Your task to perform on an android device: Clear the cart on walmart.com. Search for razer huntsman on walmart.com, select the first entry, and add it to the cart. Image 0: 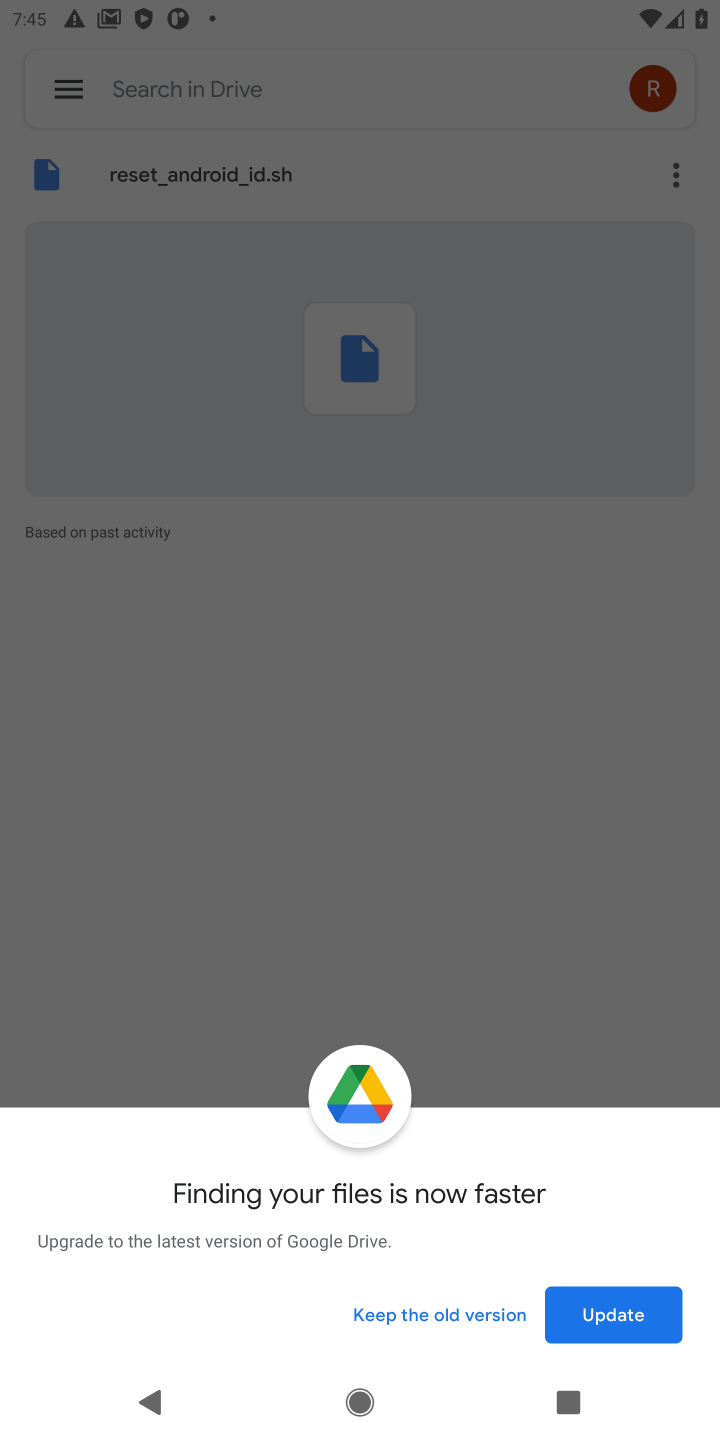
Step 0: press home button
Your task to perform on an android device: Clear the cart on walmart.com. Search for razer huntsman on walmart.com, select the first entry, and add it to the cart. Image 1: 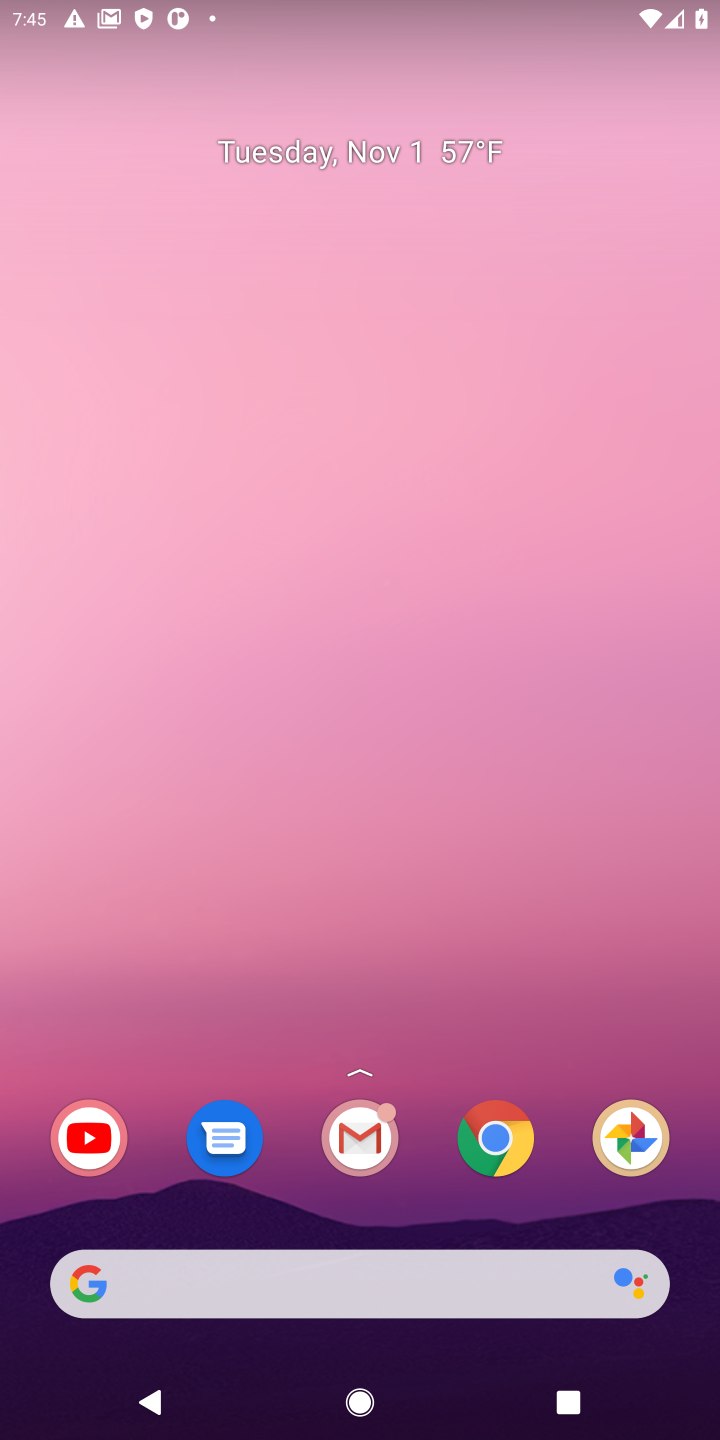
Step 1: click (497, 1162)
Your task to perform on an android device: Clear the cart on walmart.com. Search for razer huntsman on walmart.com, select the first entry, and add it to the cart. Image 2: 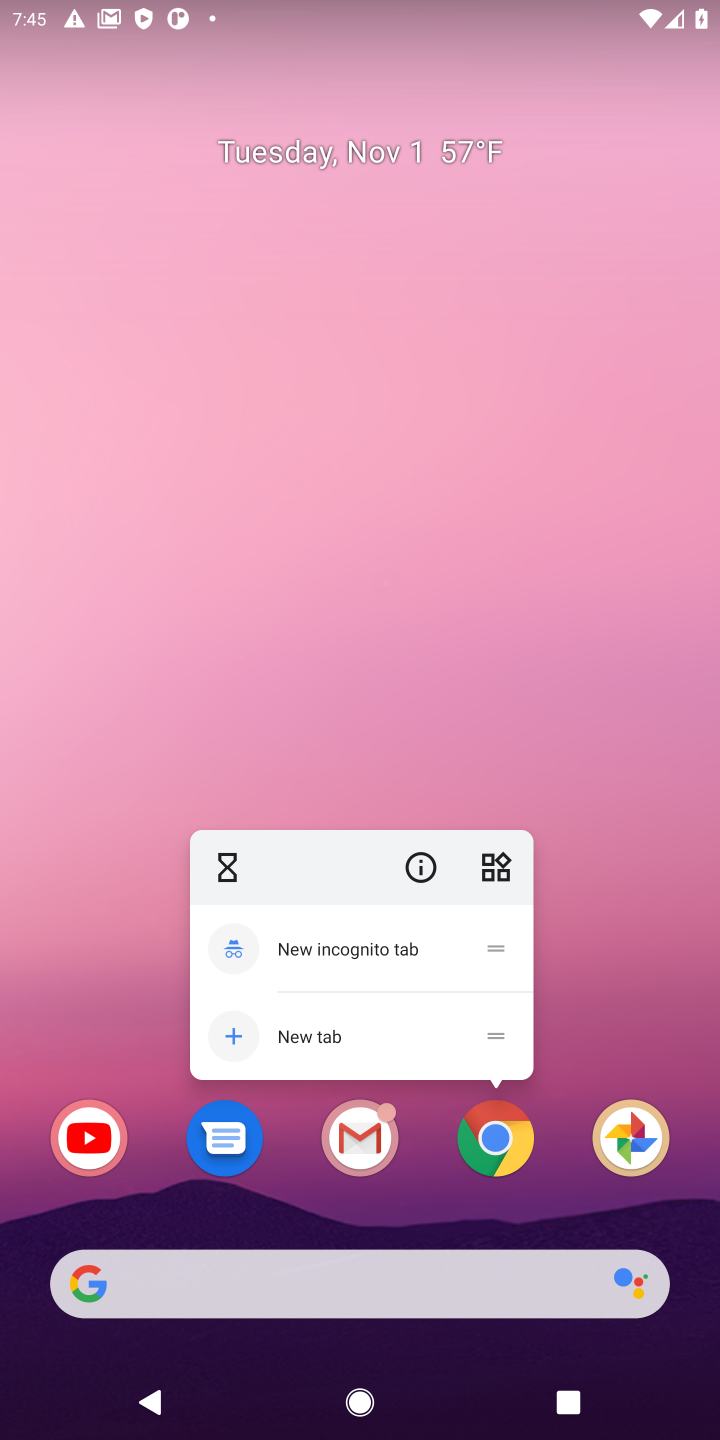
Step 2: click (513, 1134)
Your task to perform on an android device: Clear the cart on walmart.com. Search for razer huntsman on walmart.com, select the first entry, and add it to the cart. Image 3: 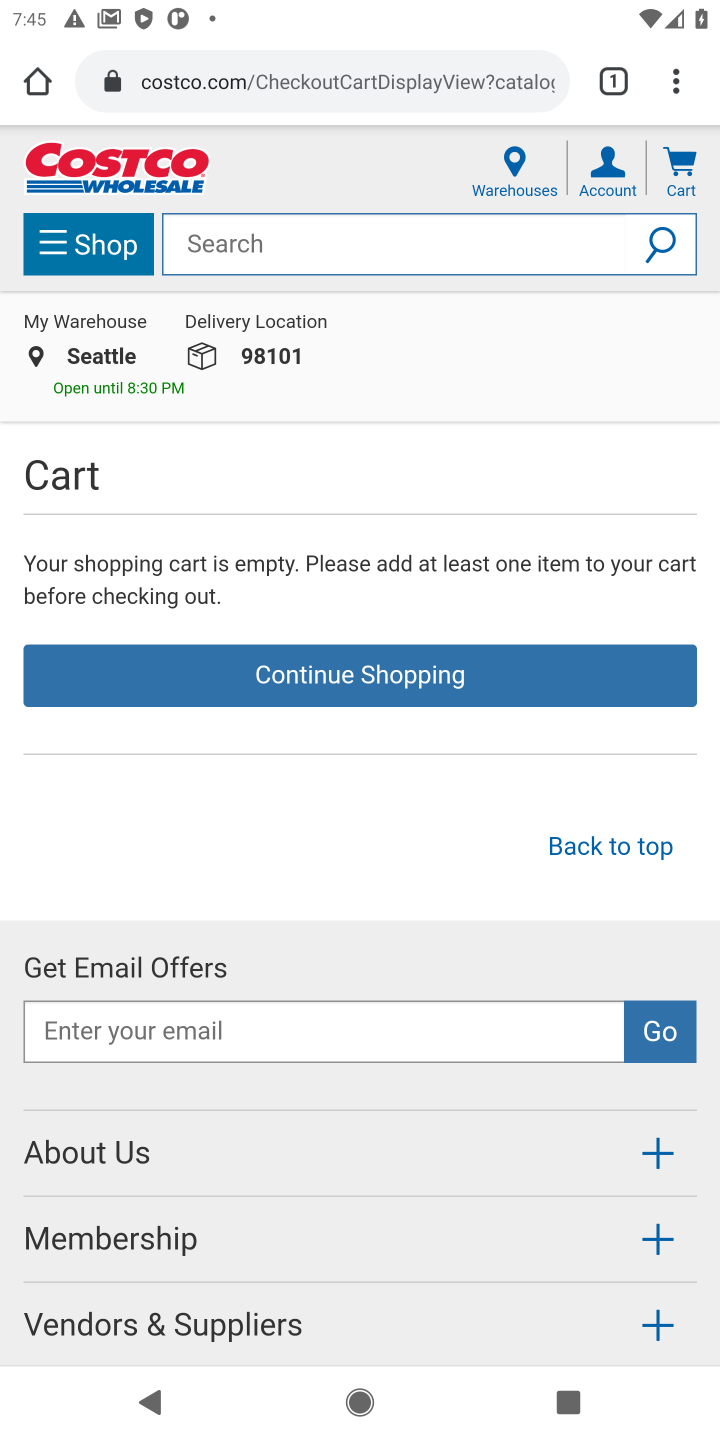
Step 3: click (255, 86)
Your task to perform on an android device: Clear the cart on walmart.com. Search for razer huntsman on walmart.com, select the first entry, and add it to the cart. Image 4: 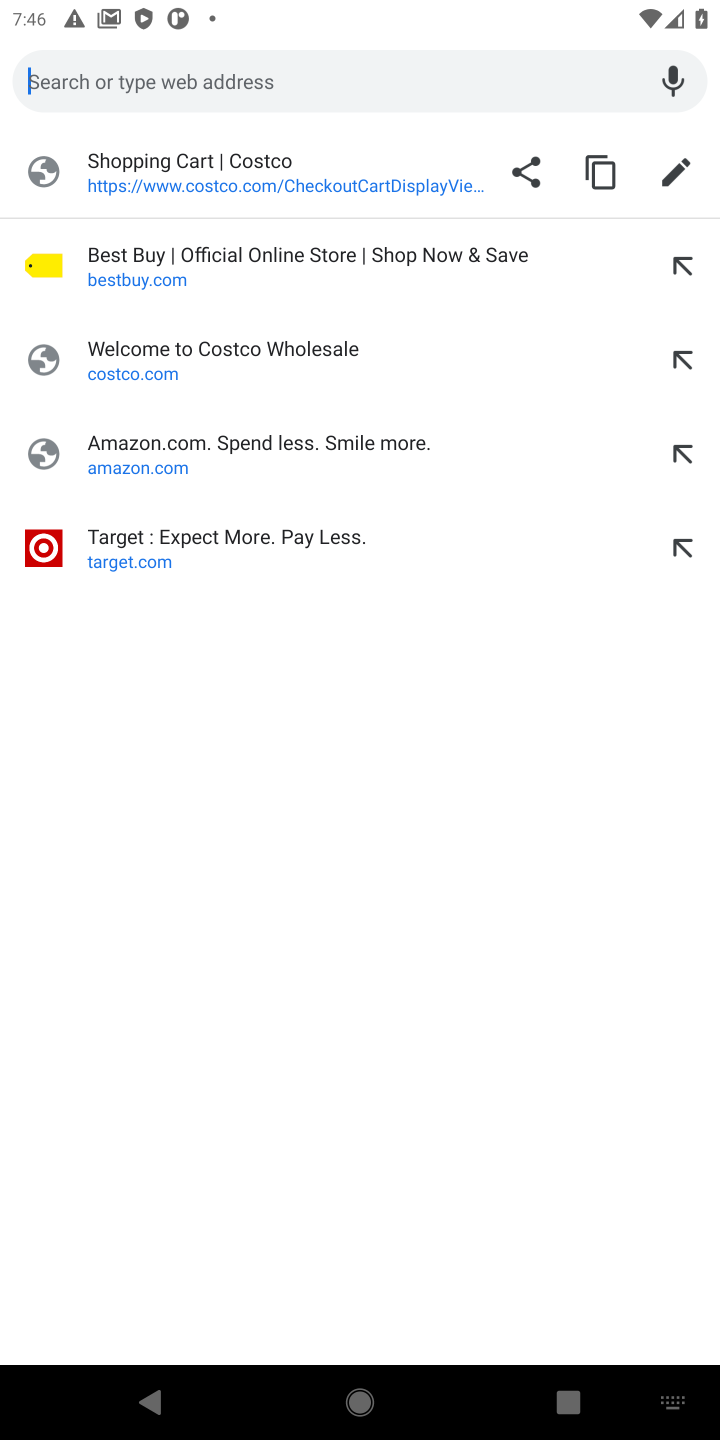
Step 4: type "walmart.com"
Your task to perform on an android device: Clear the cart on walmart.com. Search for razer huntsman on walmart.com, select the first entry, and add it to the cart. Image 5: 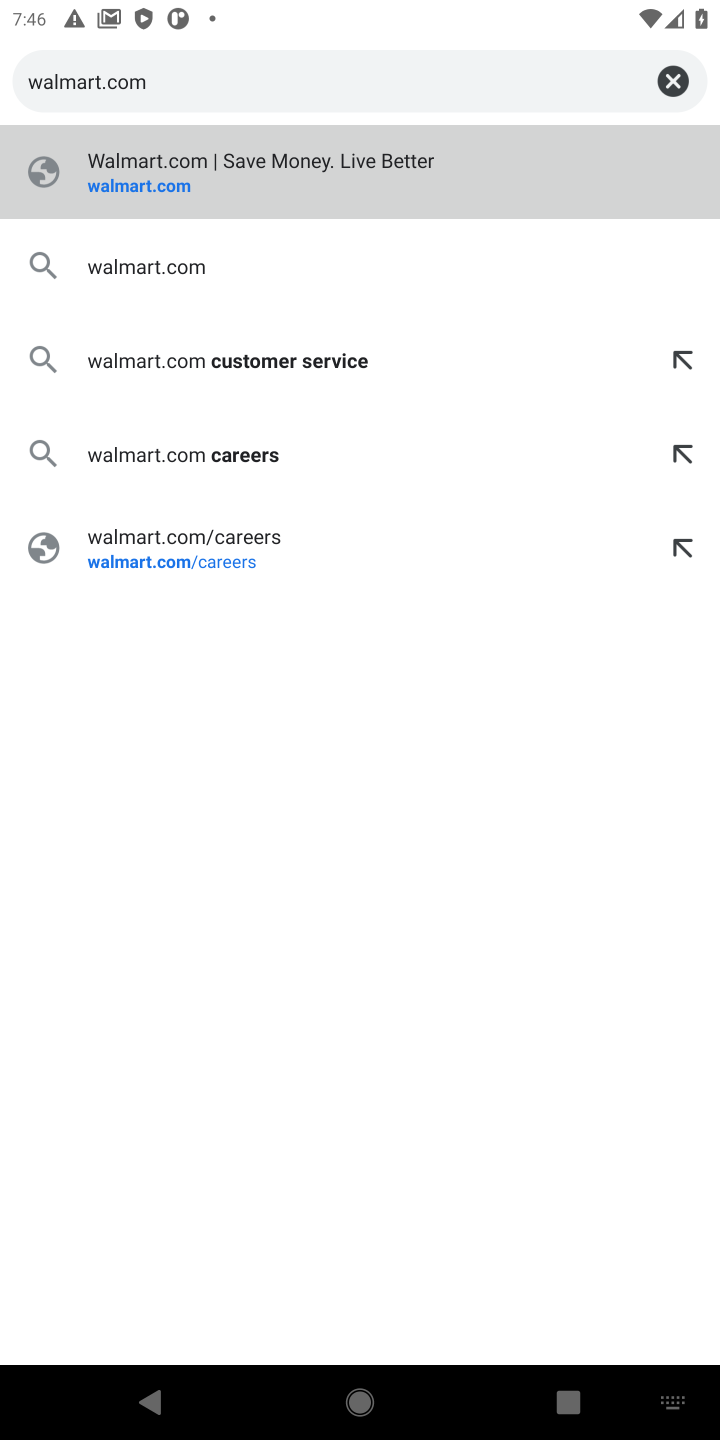
Step 5: click (111, 204)
Your task to perform on an android device: Clear the cart on walmart.com. Search for razer huntsman on walmart.com, select the first entry, and add it to the cart. Image 6: 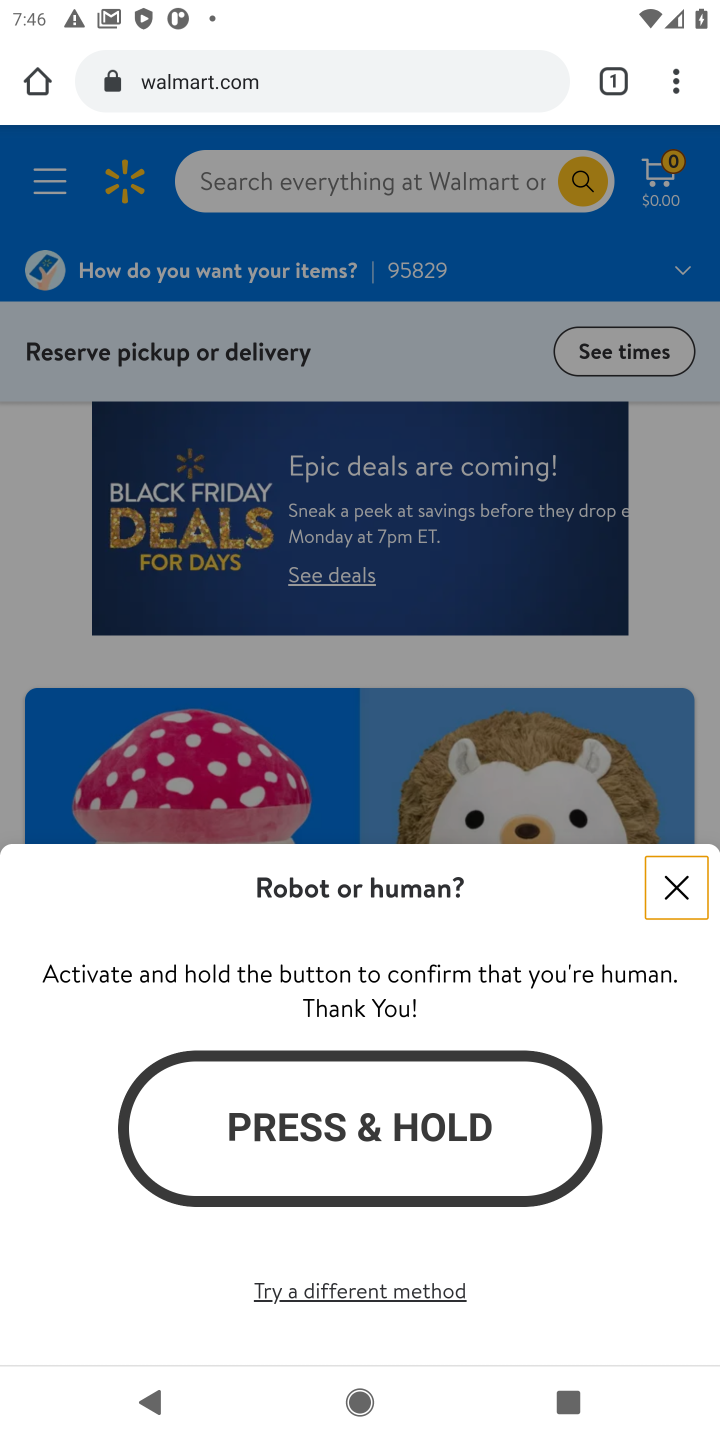
Step 6: click (683, 877)
Your task to perform on an android device: Clear the cart on walmart.com. Search for razer huntsman on walmart.com, select the first entry, and add it to the cart. Image 7: 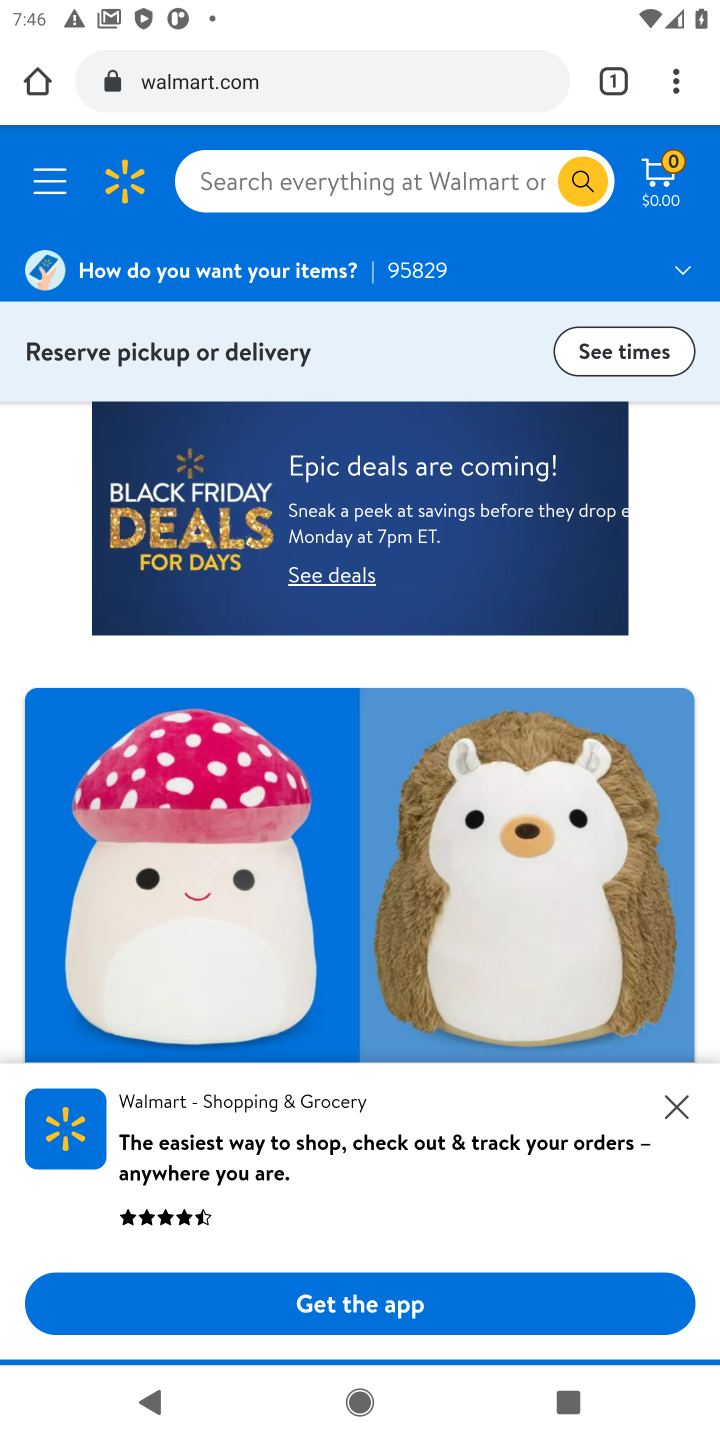
Step 7: click (651, 198)
Your task to perform on an android device: Clear the cart on walmart.com. Search for razer huntsman on walmart.com, select the first entry, and add it to the cart. Image 8: 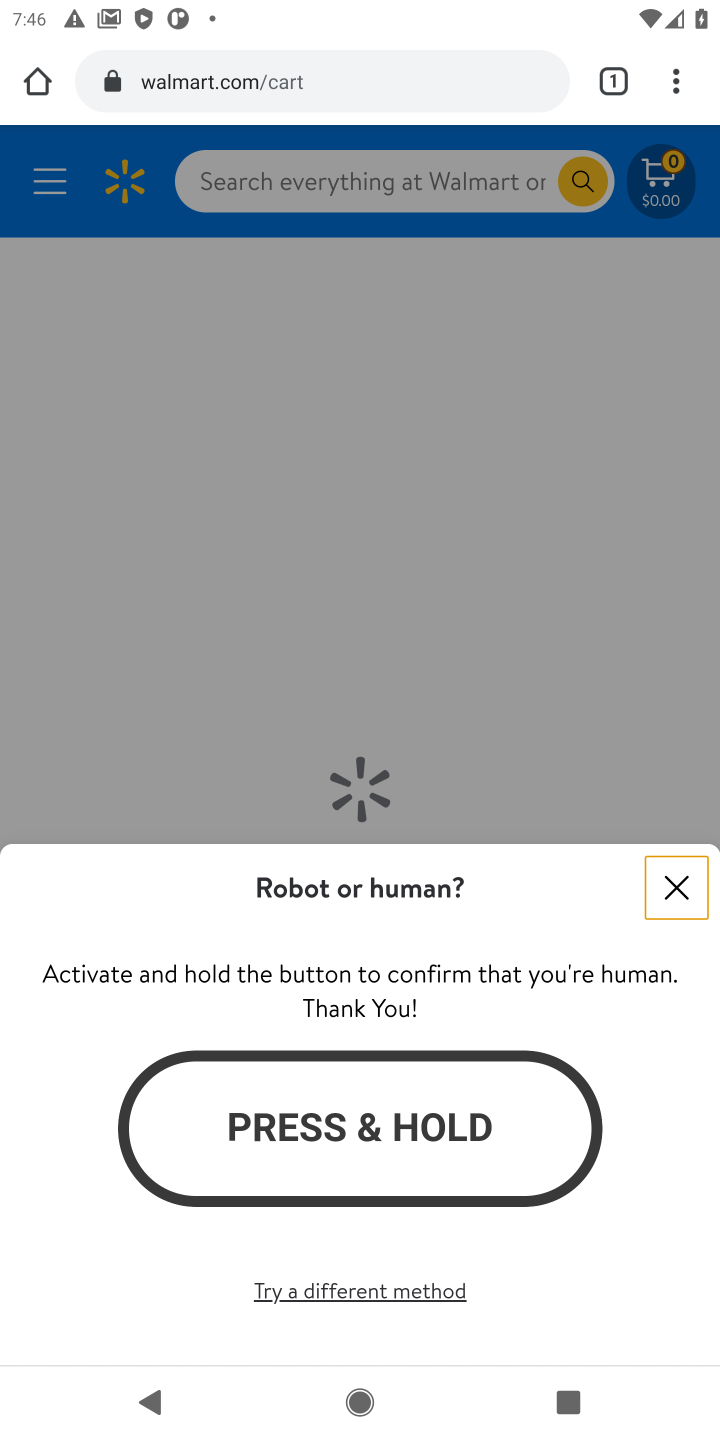
Step 8: click (344, 1138)
Your task to perform on an android device: Clear the cart on walmart.com. Search for razer huntsman on walmart.com, select the first entry, and add it to the cart. Image 9: 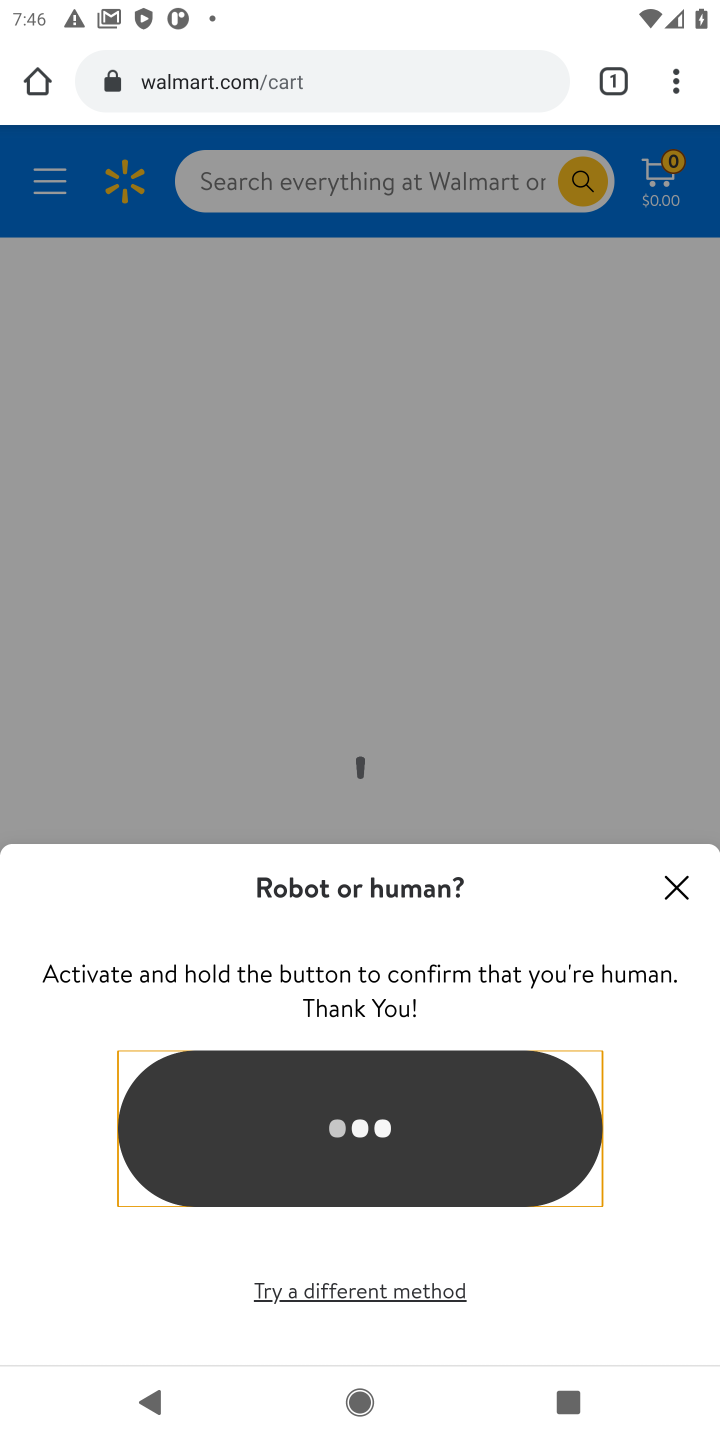
Step 9: click (681, 884)
Your task to perform on an android device: Clear the cart on walmart.com. Search for razer huntsman on walmart.com, select the first entry, and add it to the cart. Image 10: 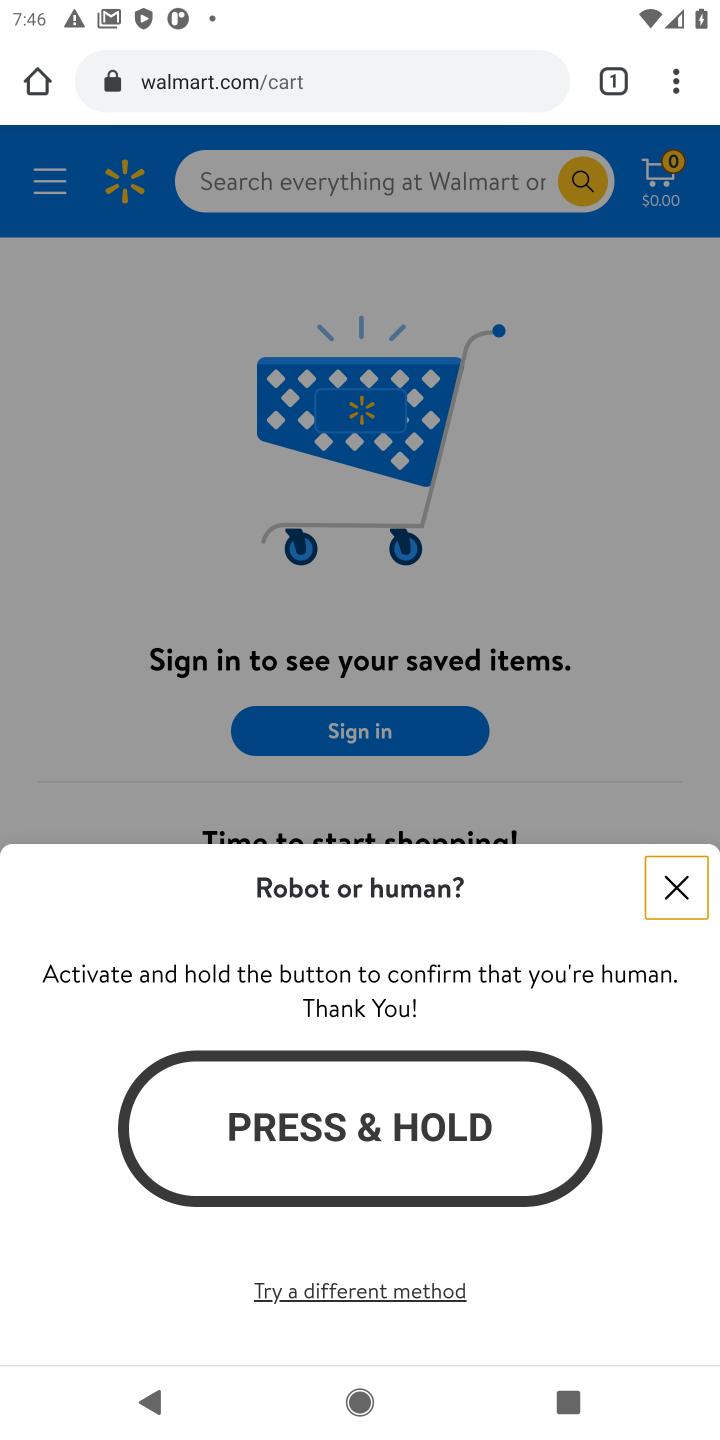
Step 10: click (667, 187)
Your task to perform on an android device: Clear the cart on walmart.com. Search for razer huntsman on walmart.com, select the first entry, and add it to the cart. Image 11: 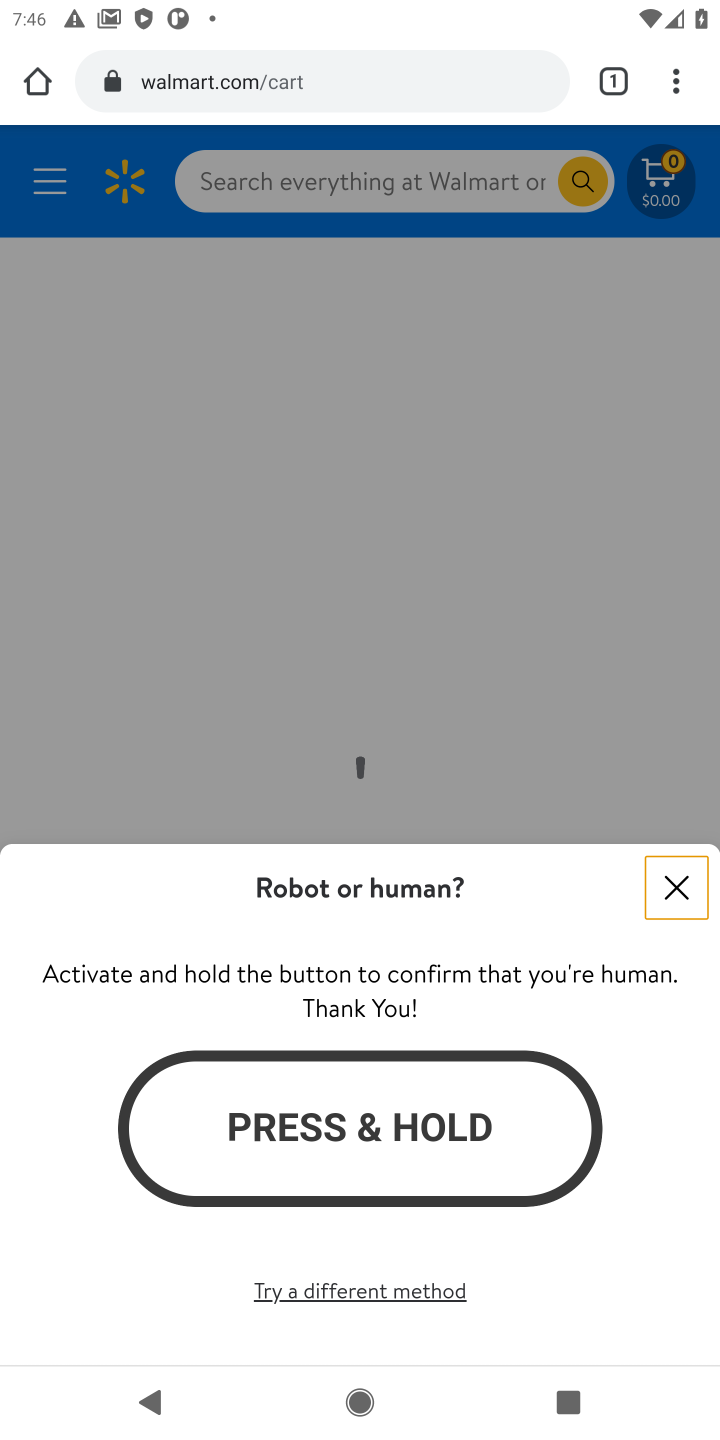
Step 11: click (675, 892)
Your task to perform on an android device: Clear the cart on walmart.com. Search for razer huntsman on walmart.com, select the first entry, and add it to the cart. Image 12: 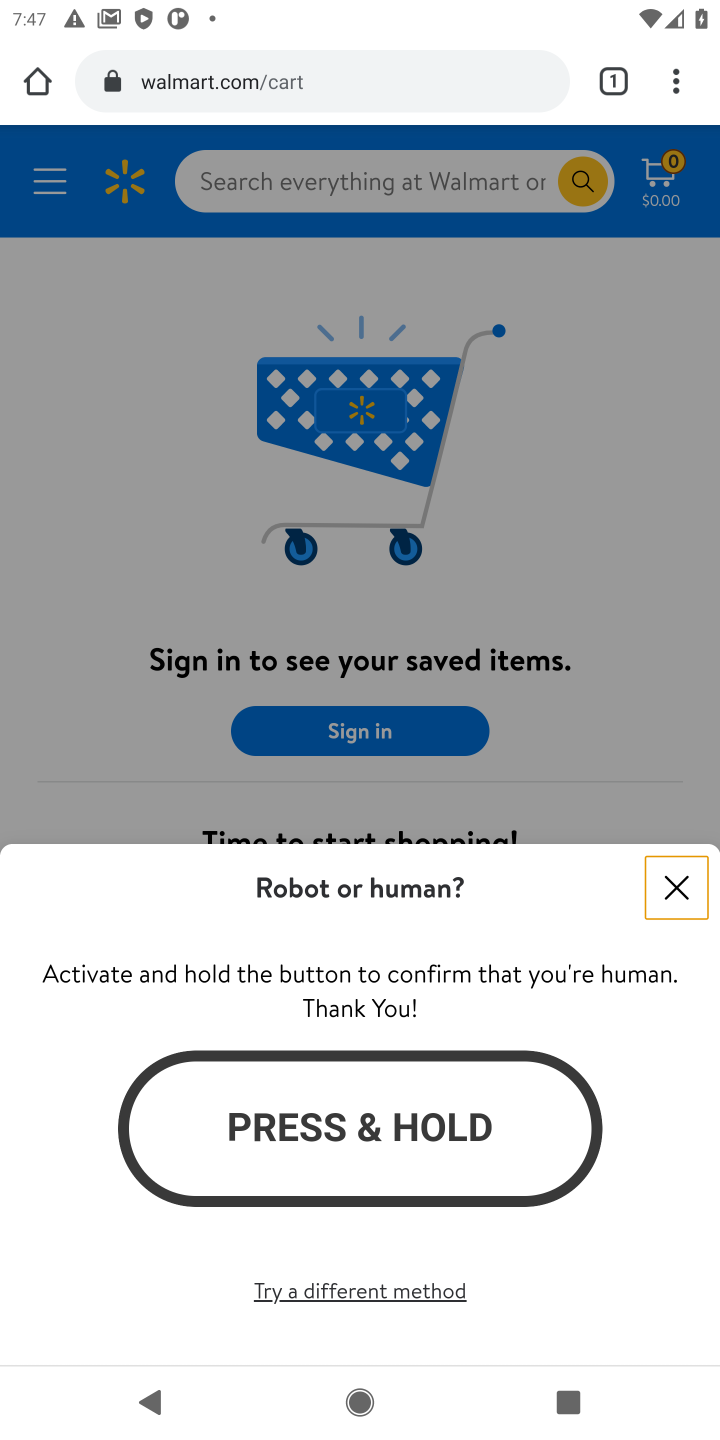
Step 12: click (326, 194)
Your task to perform on an android device: Clear the cart on walmart.com. Search for razer huntsman on walmart.com, select the first entry, and add it to the cart. Image 13: 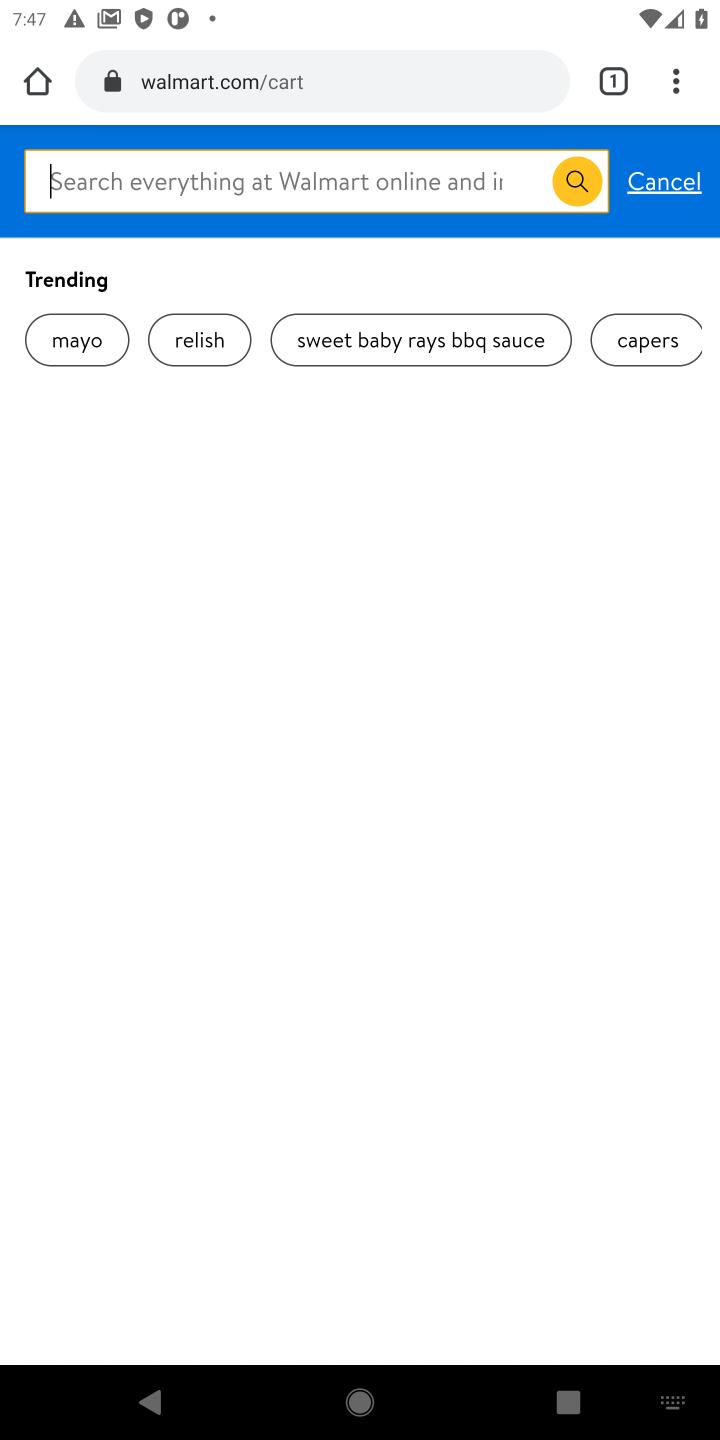
Step 13: type "razer huntsman"
Your task to perform on an android device: Clear the cart on walmart.com. Search for razer huntsman on walmart.com, select the first entry, and add it to the cart. Image 14: 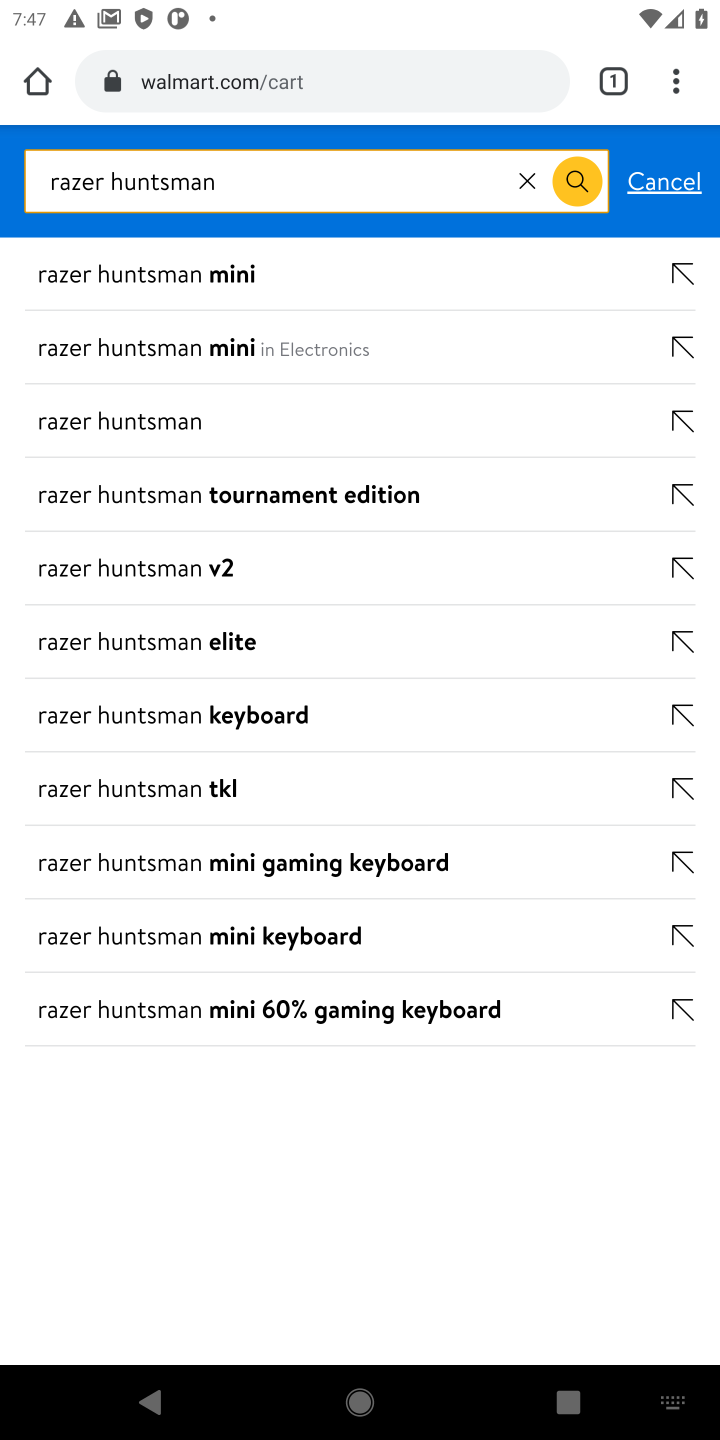
Step 14: click (151, 418)
Your task to perform on an android device: Clear the cart on walmart.com. Search for razer huntsman on walmart.com, select the first entry, and add it to the cart. Image 15: 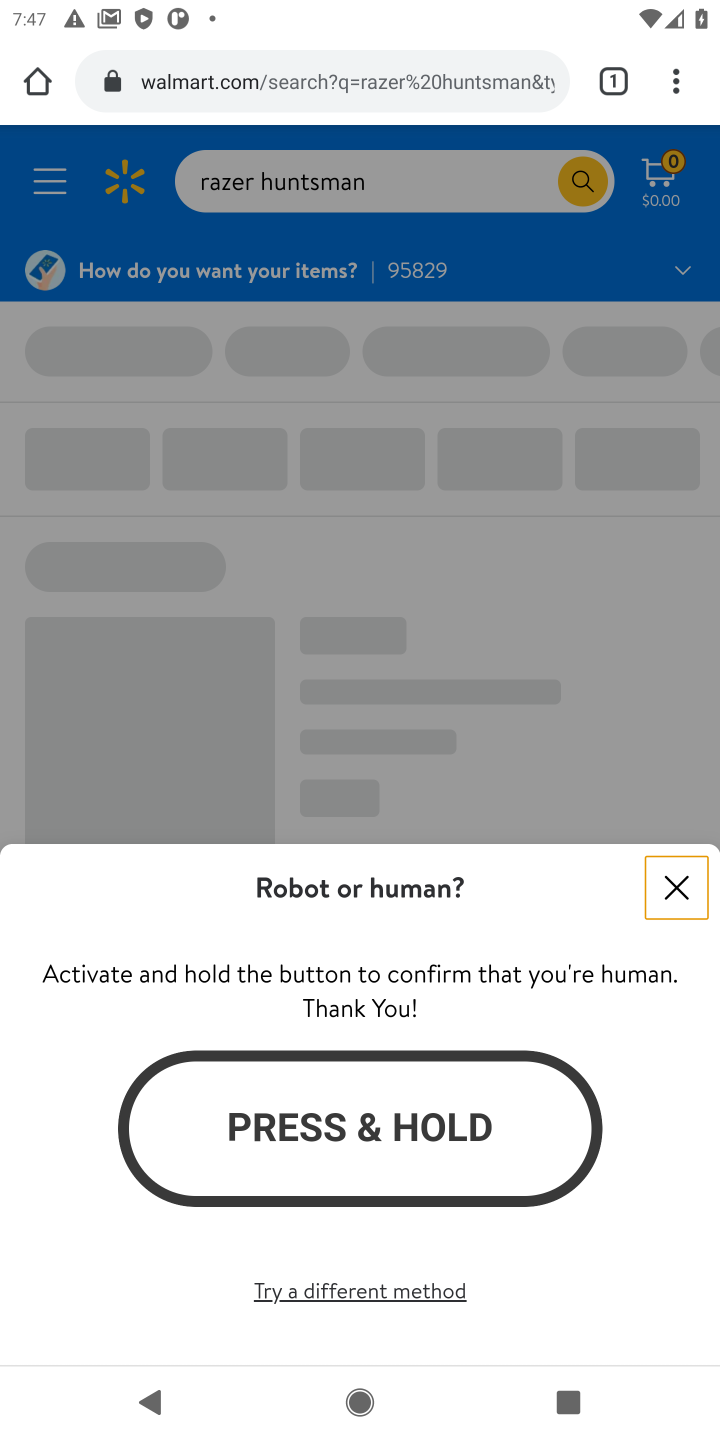
Step 15: click (678, 887)
Your task to perform on an android device: Clear the cart on walmart.com. Search for razer huntsman on walmart.com, select the first entry, and add it to the cart. Image 16: 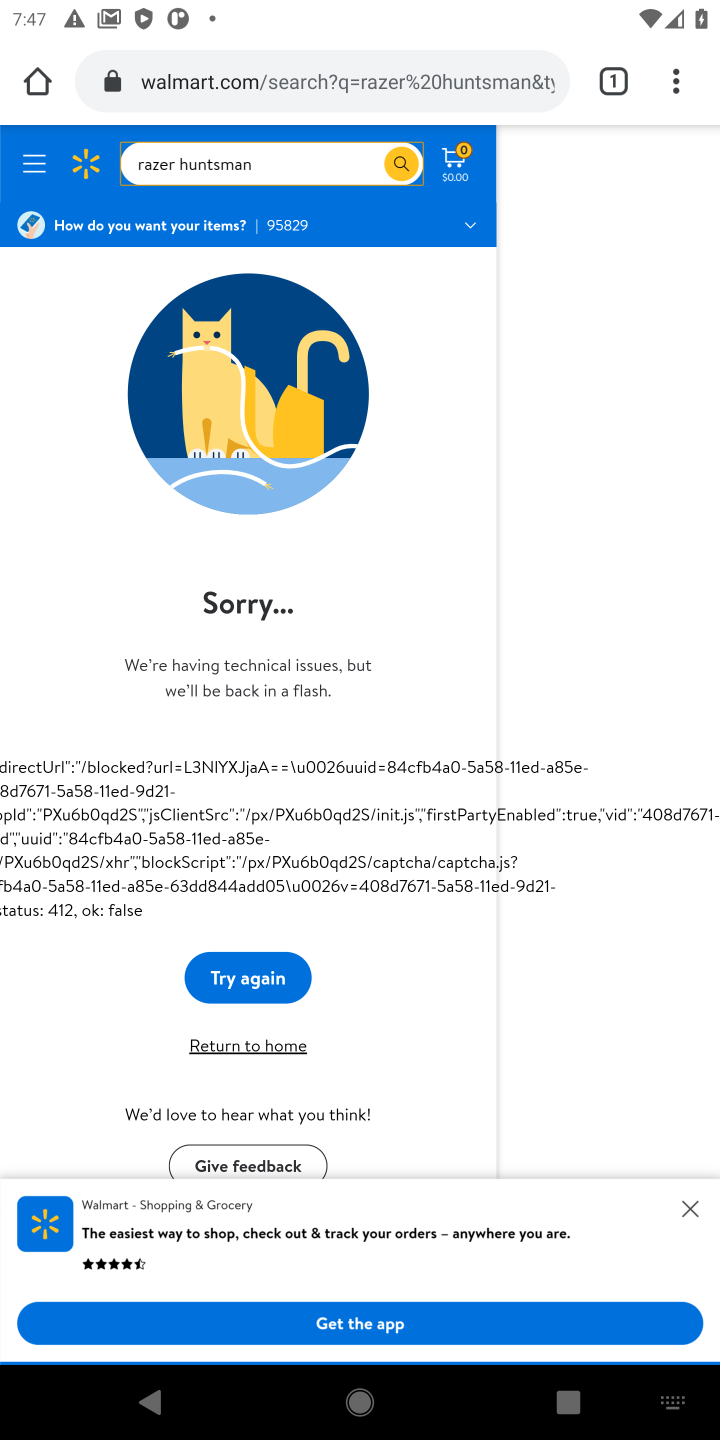
Step 16: click (690, 1213)
Your task to perform on an android device: Clear the cart on walmart.com. Search for razer huntsman on walmart.com, select the first entry, and add it to the cart. Image 17: 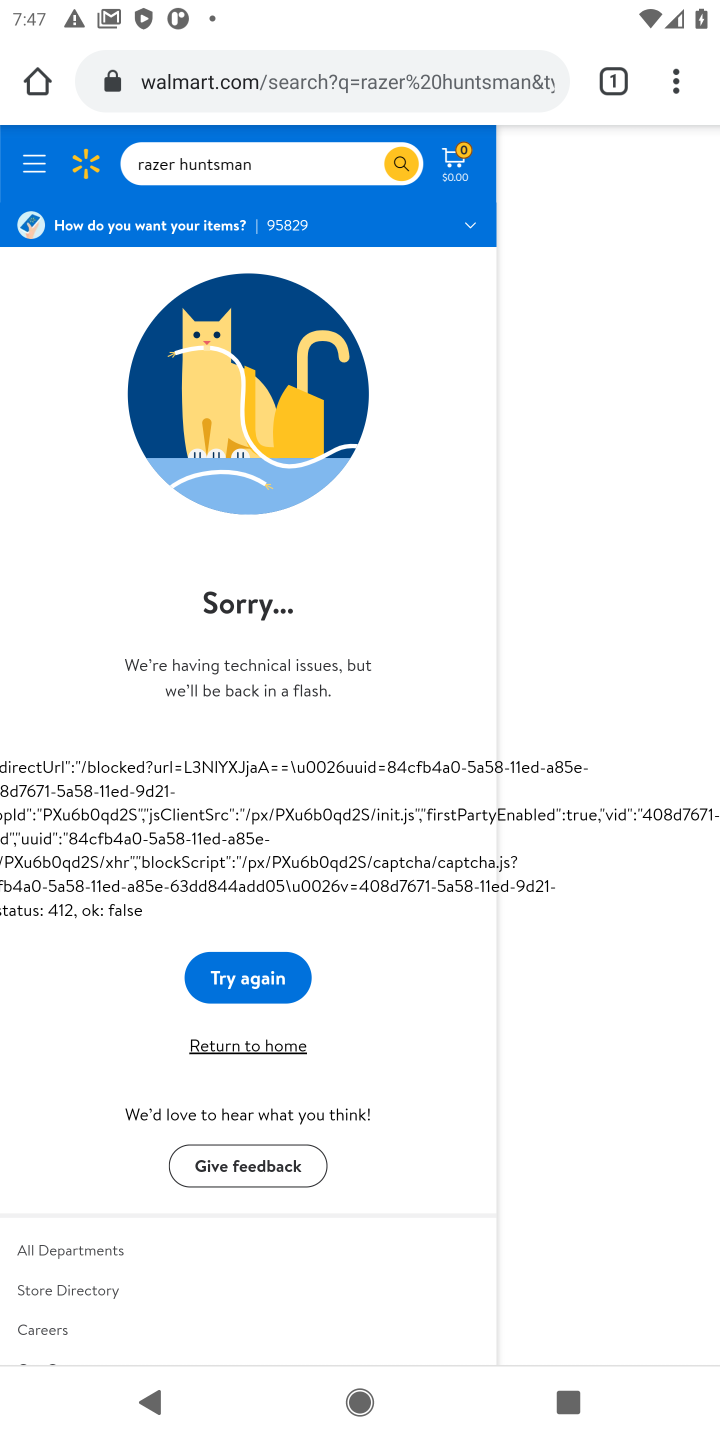
Step 17: task complete